Your task to perform on an android device: turn off notifications settings in the gmail app Image 0: 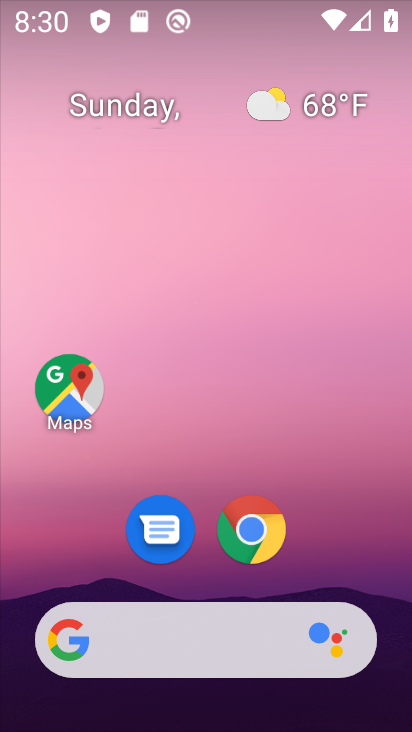
Step 0: drag from (211, 568) to (241, 213)
Your task to perform on an android device: turn off notifications settings in the gmail app Image 1: 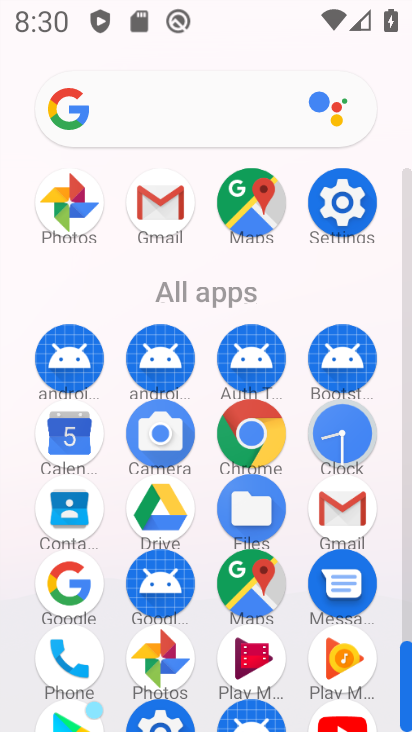
Step 1: click (152, 195)
Your task to perform on an android device: turn off notifications settings in the gmail app Image 2: 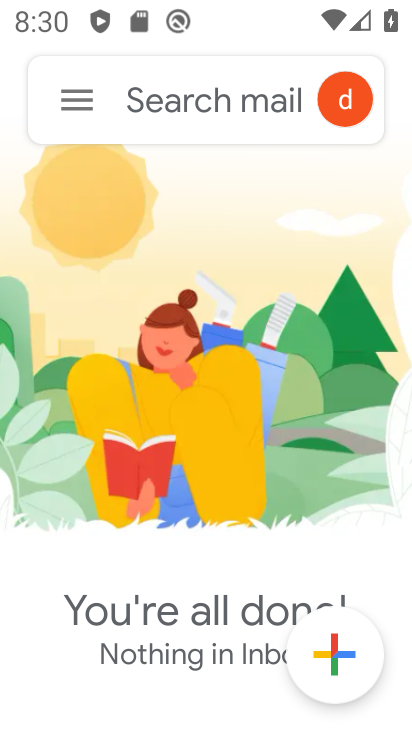
Step 2: click (65, 98)
Your task to perform on an android device: turn off notifications settings in the gmail app Image 3: 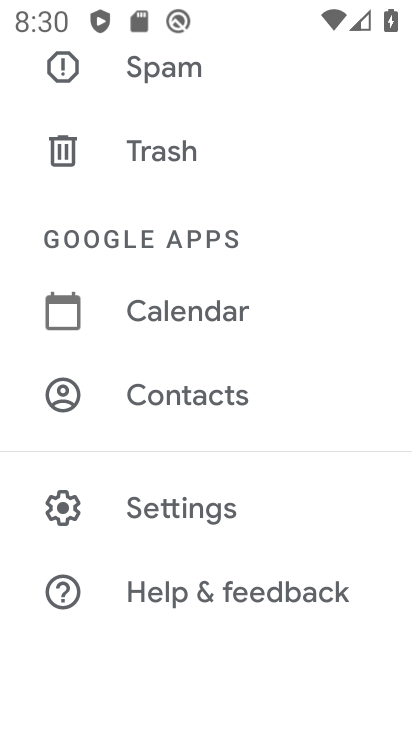
Step 3: click (123, 507)
Your task to perform on an android device: turn off notifications settings in the gmail app Image 4: 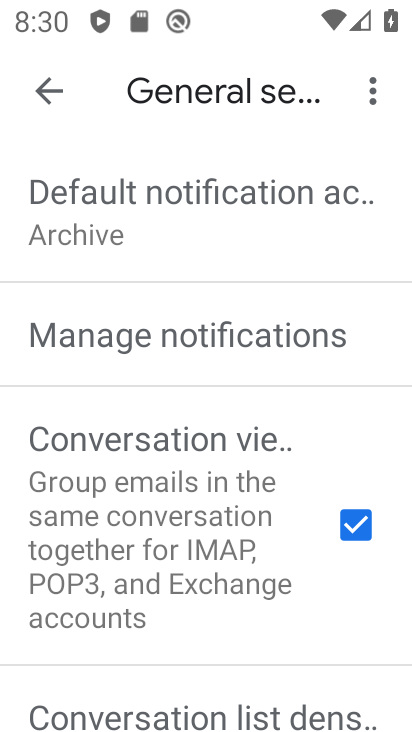
Step 4: click (256, 348)
Your task to perform on an android device: turn off notifications settings in the gmail app Image 5: 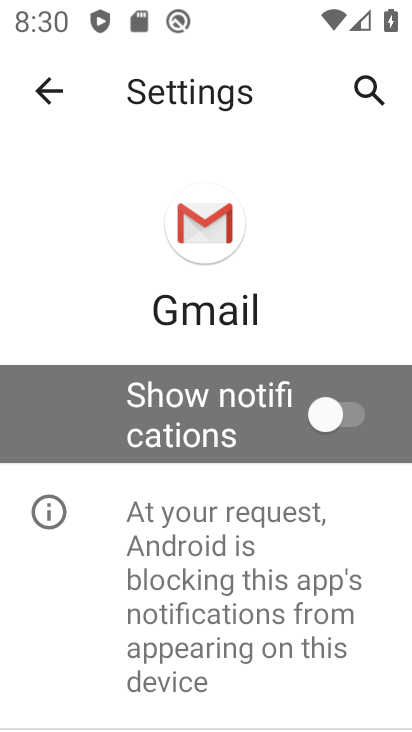
Step 5: task complete